Your task to perform on an android device: set default search engine in the chrome app Image 0: 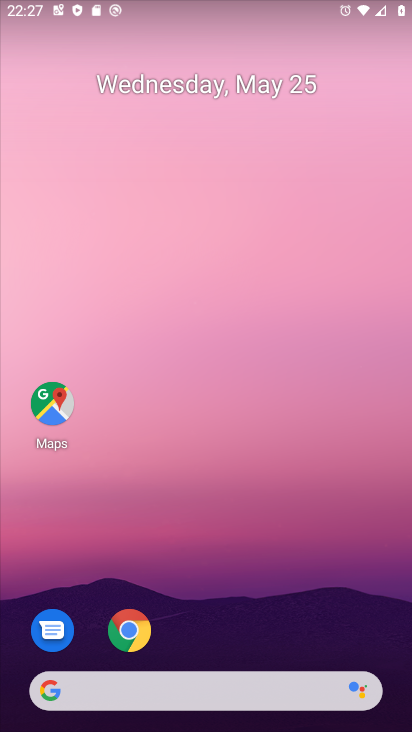
Step 0: click (121, 632)
Your task to perform on an android device: set default search engine in the chrome app Image 1: 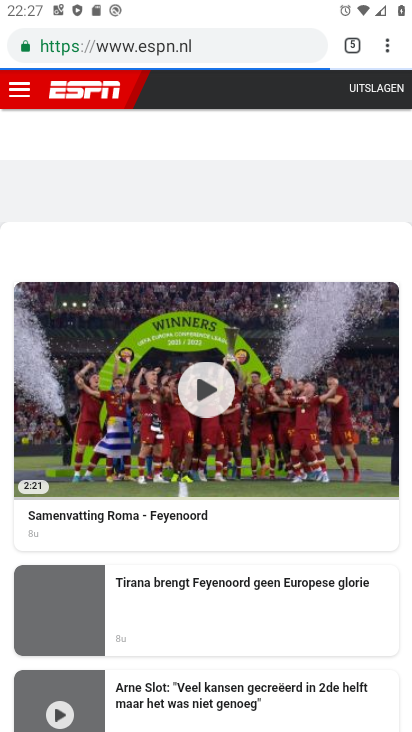
Step 1: click (380, 51)
Your task to perform on an android device: set default search engine in the chrome app Image 2: 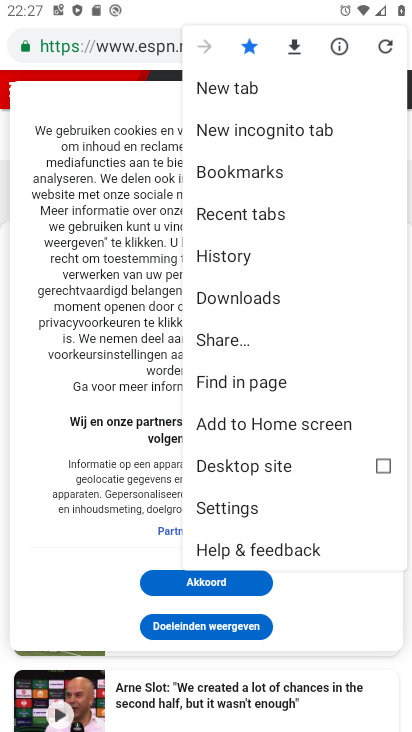
Step 2: click (242, 499)
Your task to perform on an android device: set default search engine in the chrome app Image 3: 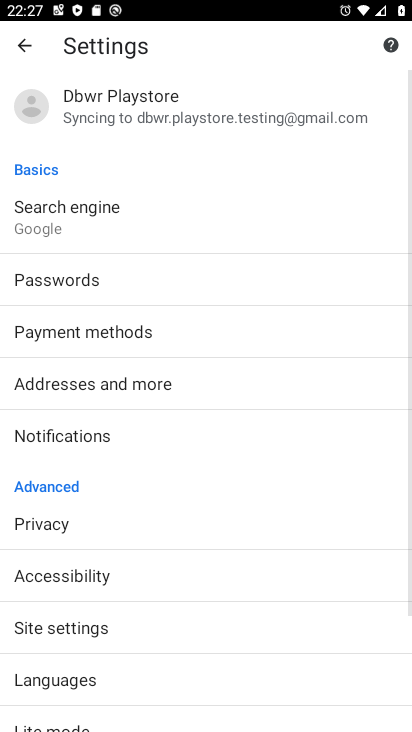
Step 3: click (117, 232)
Your task to perform on an android device: set default search engine in the chrome app Image 4: 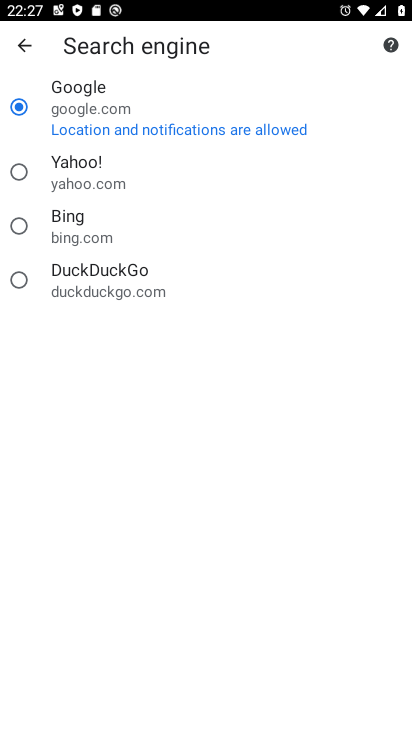
Step 4: click (15, 171)
Your task to perform on an android device: set default search engine in the chrome app Image 5: 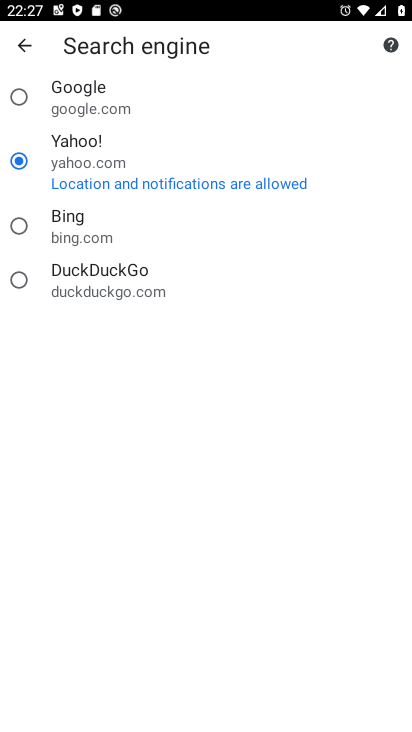
Step 5: click (61, 102)
Your task to perform on an android device: set default search engine in the chrome app Image 6: 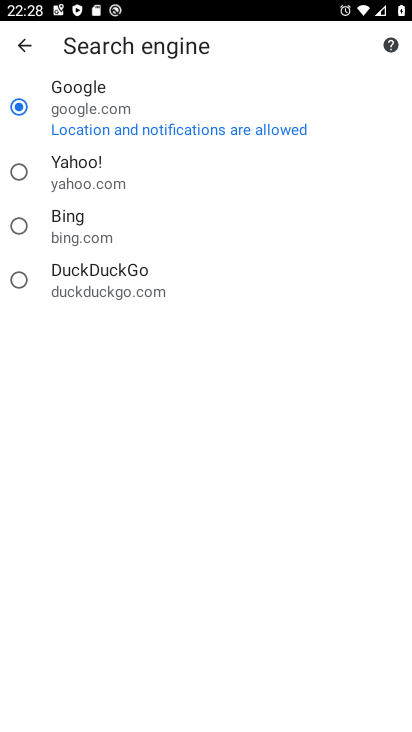
Step 6: task complete